Your task to perform on an android device: toggle airplane mode Image 0: 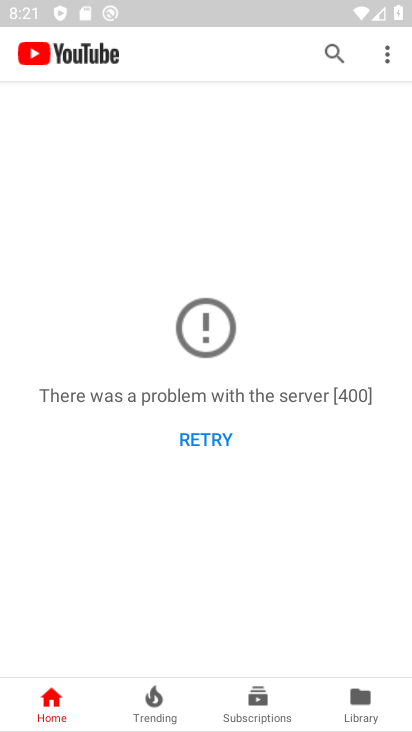
Step 0: press home button
Your task to perform on an android device: toggle airplane mode Image 1: 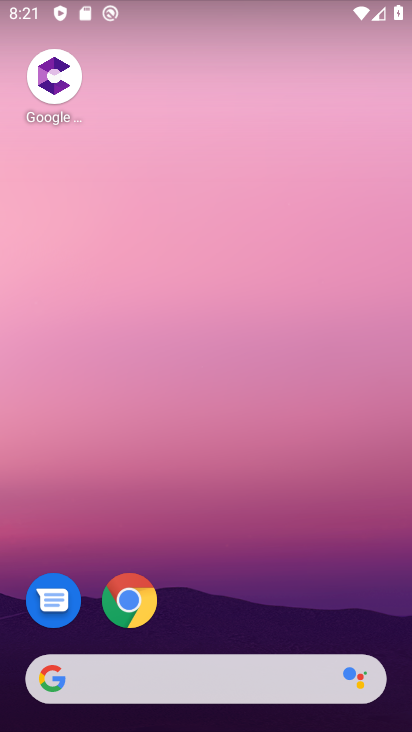
Step 1: drag from (220, 617) to (215, 53)
Your task to perform on an android device: toggle airplane mode Image 2: 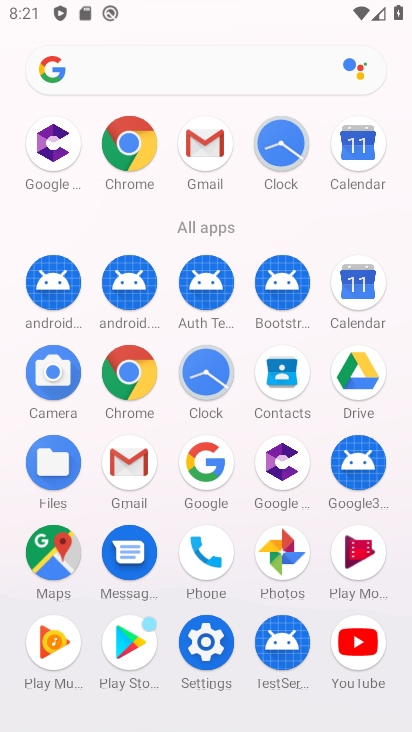
Step 2: click (217, 640)
Your task to perform on an android device: toggle airplane mode Image 3: 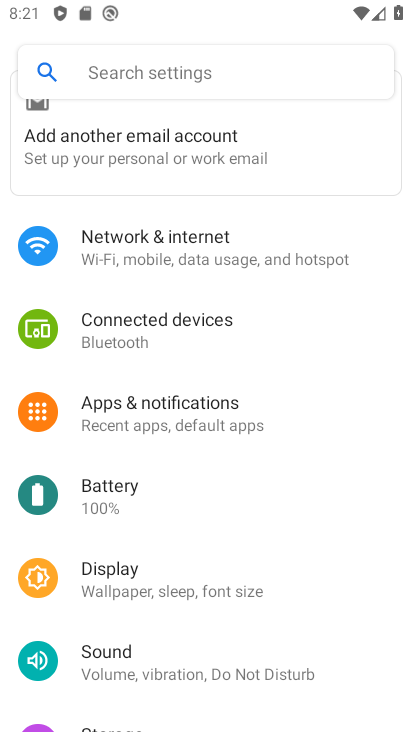
Step 3: click (153, 273)
Your task to perform on an android device: toggle airplane mode Image 4: 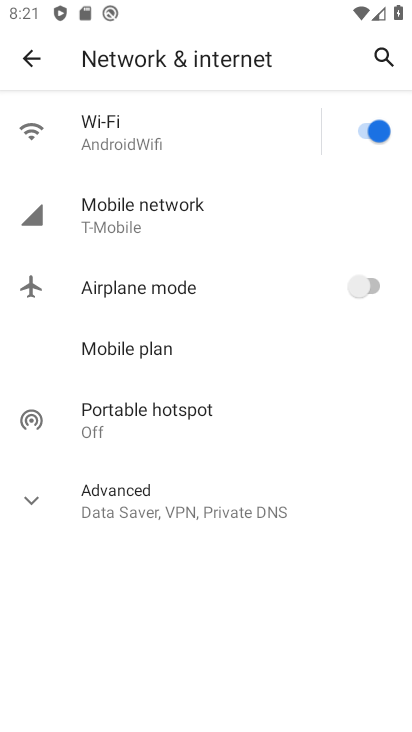
Step 4: click (372, 290)
Your task to perform on an android device: toggle airplane mode Image 5: 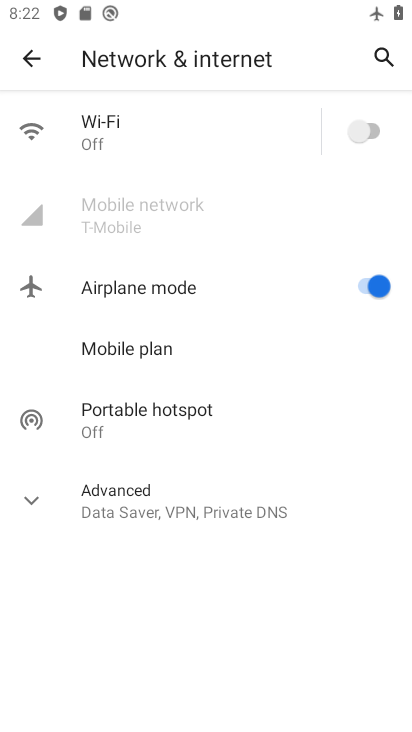
Step 5: task complete